Your task to perform on an android device: change notification settings in the gmail app Image 0: 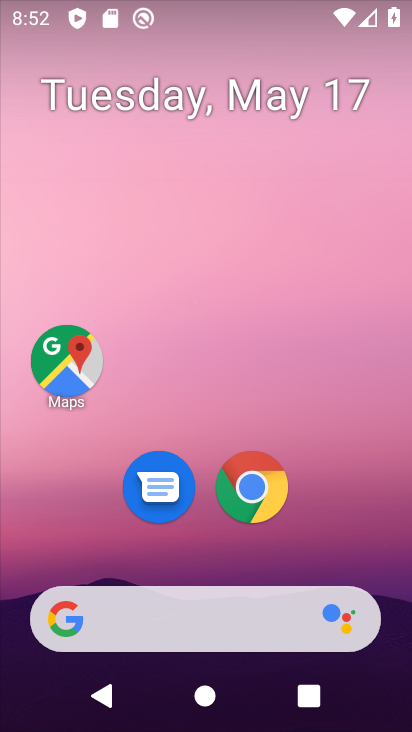
Step 0: press home button
Your task to perform on an android device: change notification settings in the gmail app Image 1: 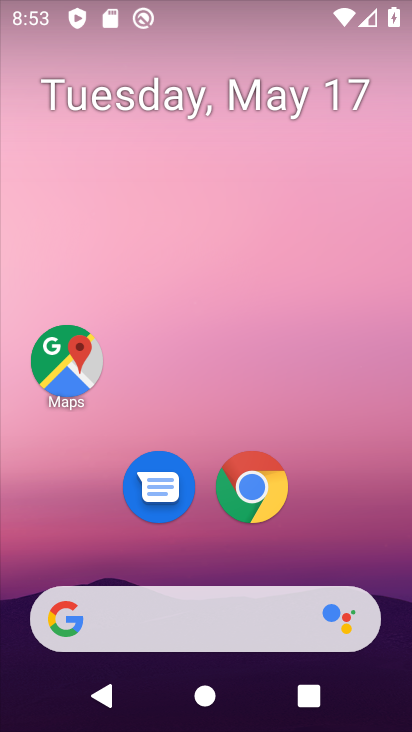
Step 1: drag from (271, 660) to (281, 252)
Your task to perform on an android device: change notification settings in the gmail app Image 2: 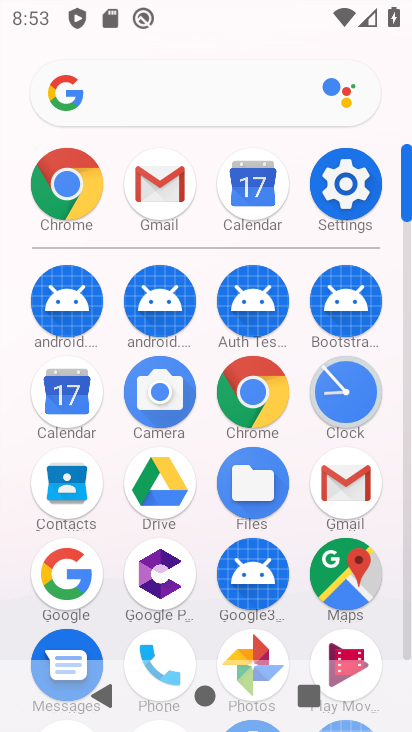
Step 2: click (339, 492)
Your task to perform on an android device: change notification settings in the gmail app Image 3: 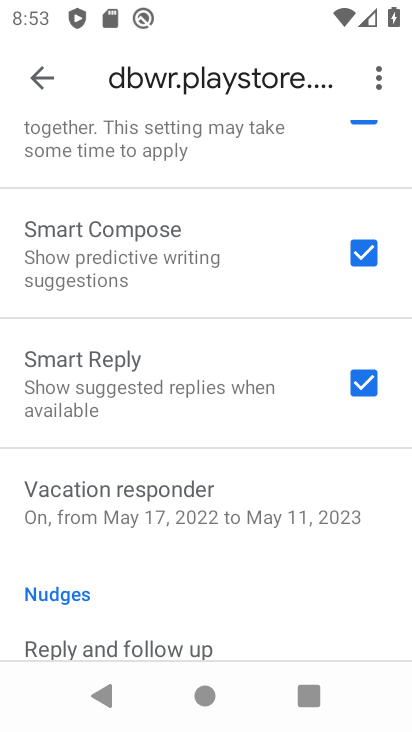
Step 3: drag from (115, 304) to (99, 624)
Your task to perform on an android device: change notification settings in the gmail app Image 4: 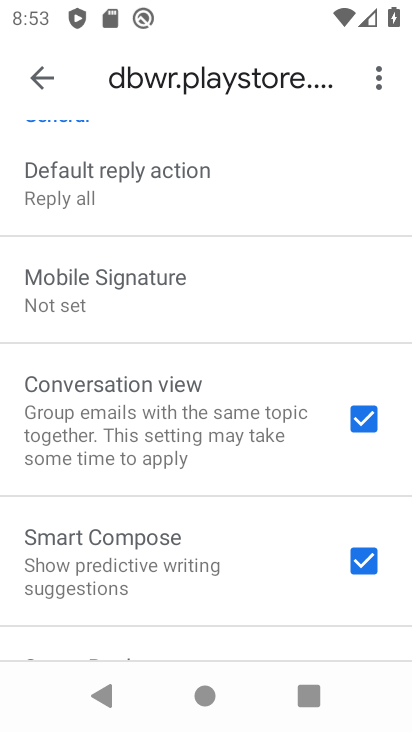
Step 4: drag from (166, 240) to (132, 705)
Your task to perform on an android device: change notification settings in the gmail app Image 5: 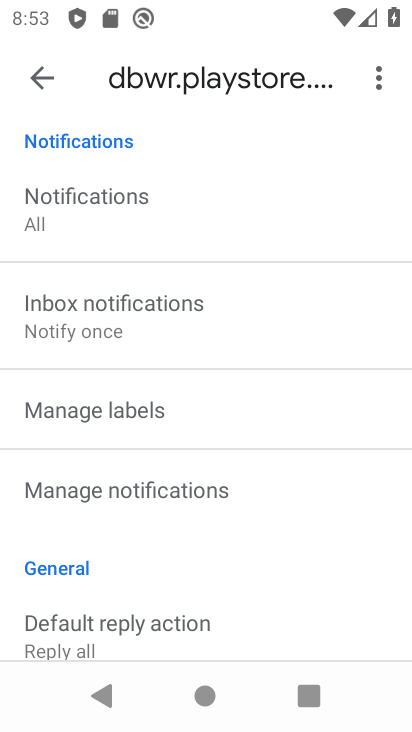
Step 5: click (102, 198)
Your task to perform on an android device: change notification settings in the gmail app Image 6: 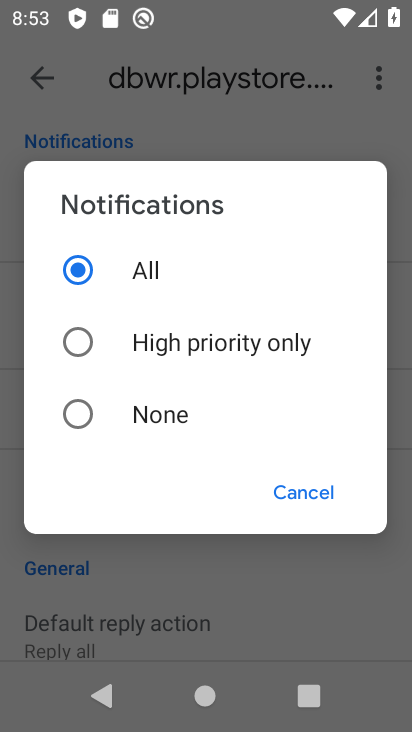
Step 6: click (174, 353)
Your task to perform on an android device: change notification settings in the gmail app Image 7: 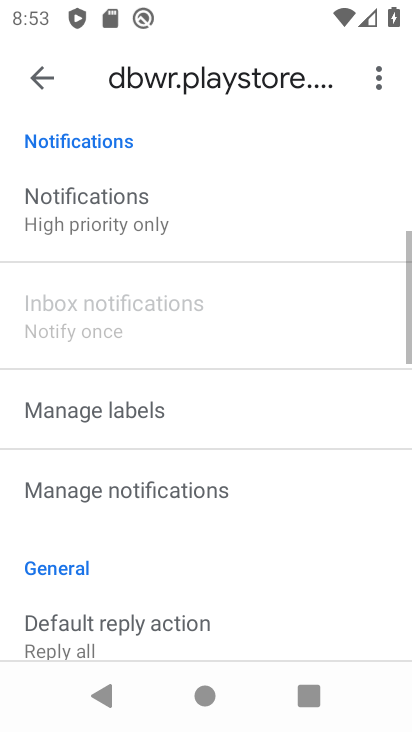
Step 7: task complete